Your task to perform on an android device: Search for sushi restaurants on Maps Image 0: 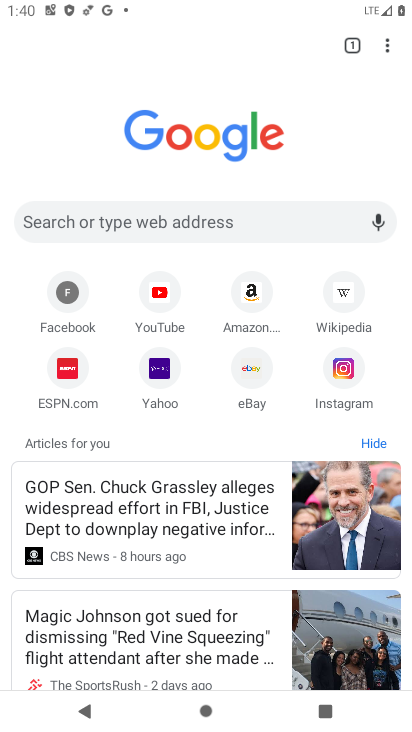
Step 0: press home button
Your task to perform on an android device: Search for sushi restaurants on Maps Image 1: 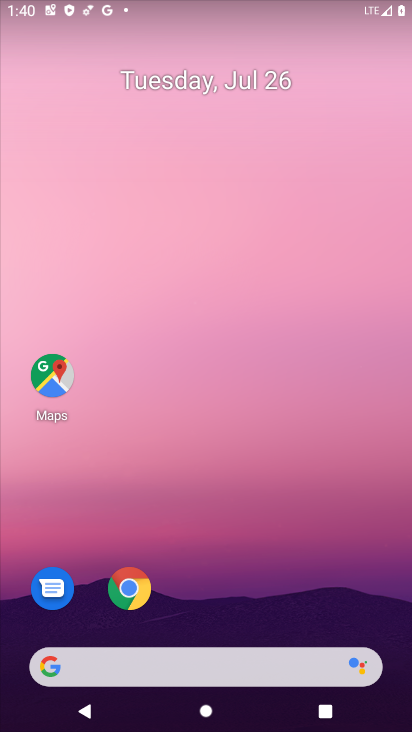
Step 1: drag from (194, 644) to (139, 82)
Your task to perform on an android device: Search for sushi restaurants on Maps Image 2: 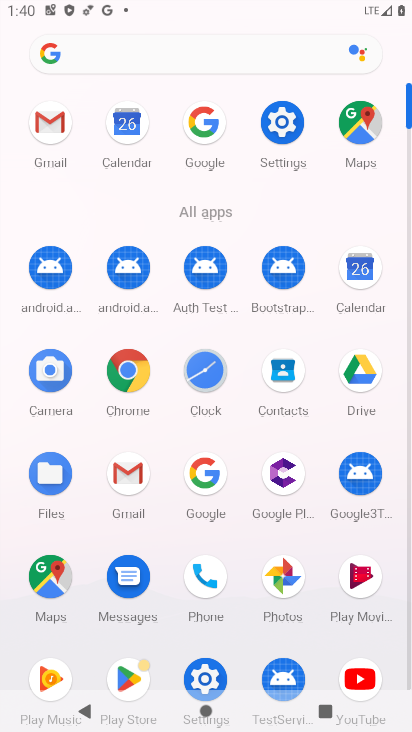
Step 2: click (40, 589)
Your task to perform on an android device: Search for sushi restaurants on Maps Image 3: 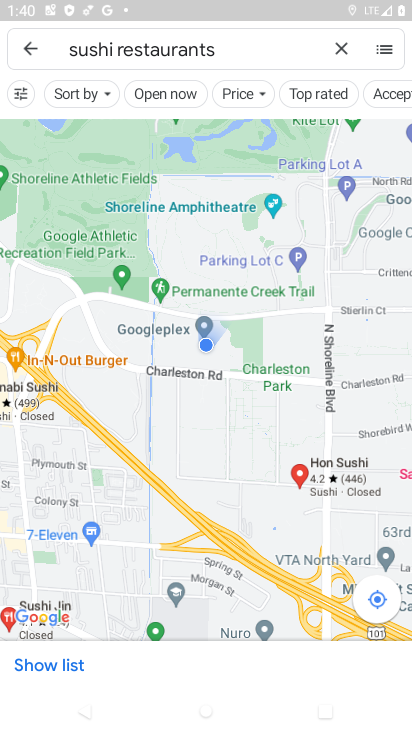
Step 3: task complete